Your task to perform on an android device: open chrome privacy settings Image 0: 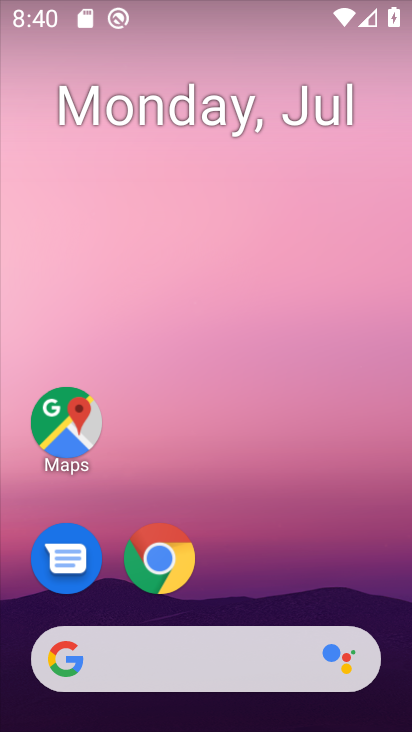
Step 0: drag from (382, 579) to (373, 105)
Your task to perform on an android device: open chrome privacy settings Image 1: 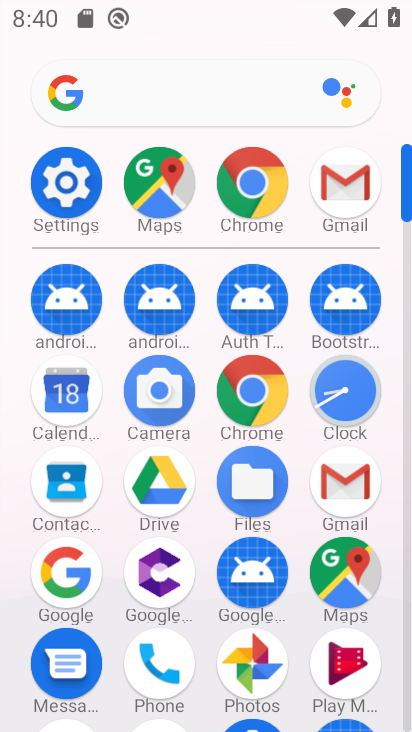
Step 1: click (254, 393)
Your task to perform on an android device: open chrome privacy settings Image 2: 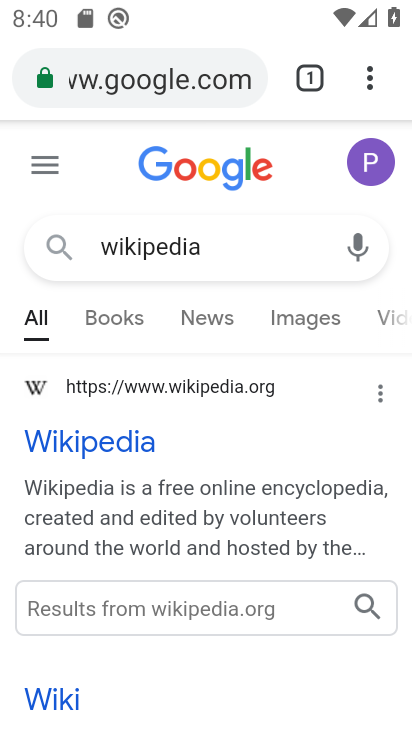
Step 2: click (371, 83)
Your task to perform on an android device: open chrome privacy settings Image 3: 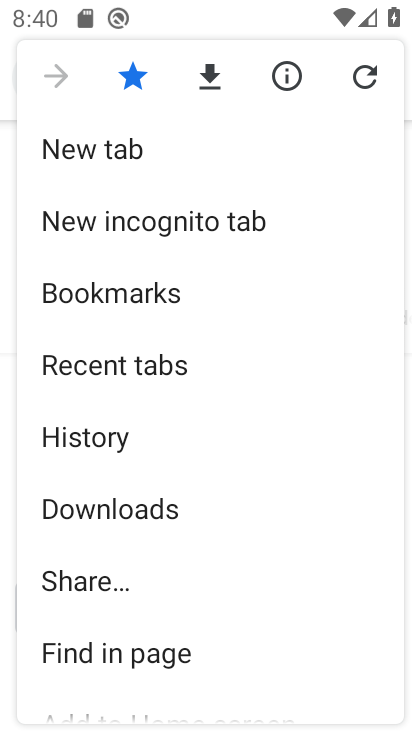
Step 3: drag from (326, 437) to (332, 244)
Your task to perform on an android device: open chrome privacy settings Image 4: 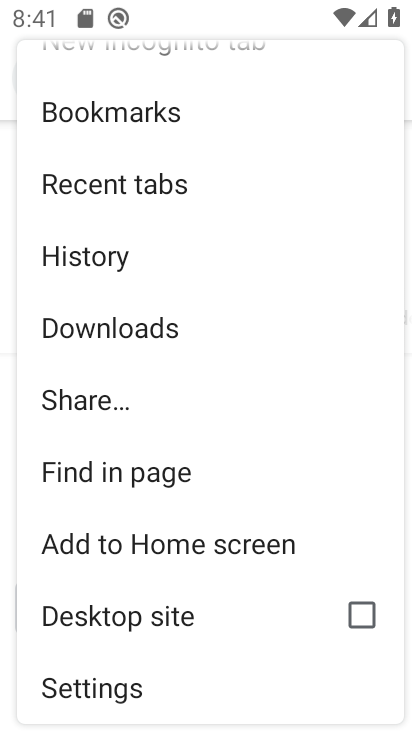
Step 4: drag from (292, 471) to (293, 296)
Your task to perform on an android device: open chrome privacy settings Image 5: 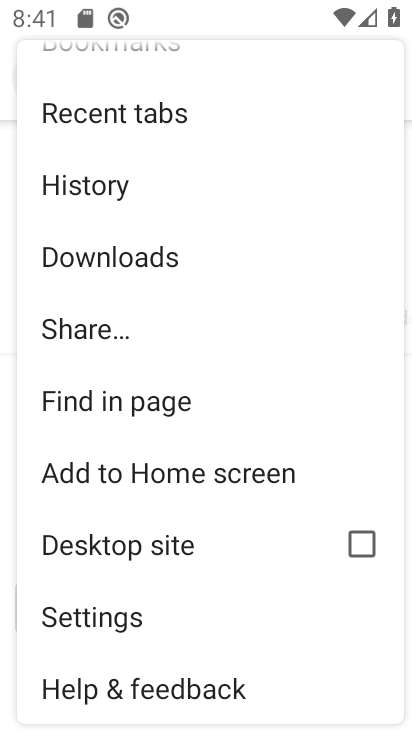
Step 5: click (160, 614)
Your task to perform on an android device: open chrome privacy settings Image 6: 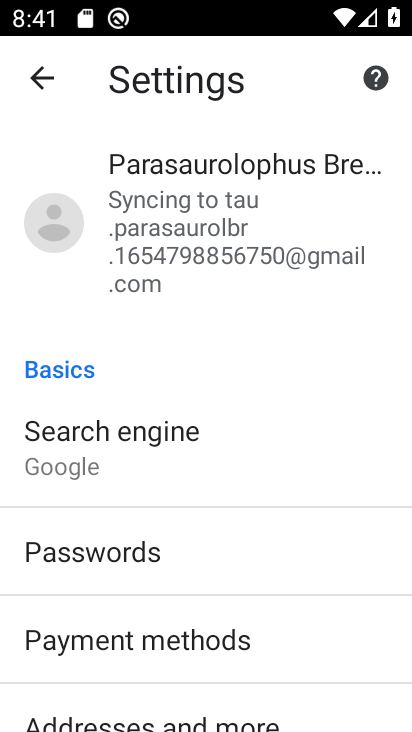
Step 6: drag from (277, 600) to (280, 415)
Your task to perform on an android device: open chrome privacy settings Image 7: 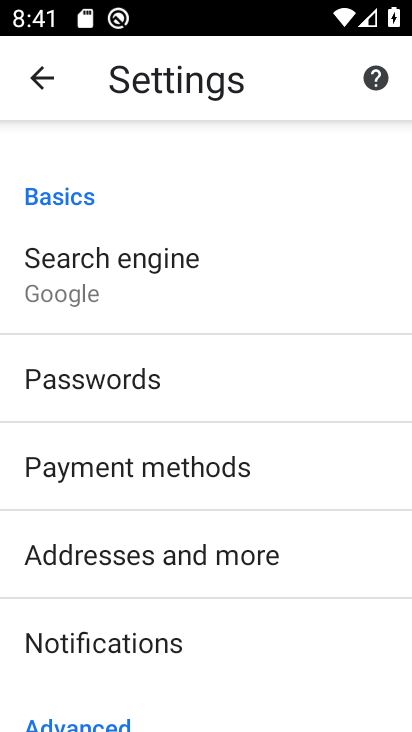
Step 7: drag from (332, 529) to (326, 413)
Your task to perform on an android device: open chrome privacy settings Image 8: 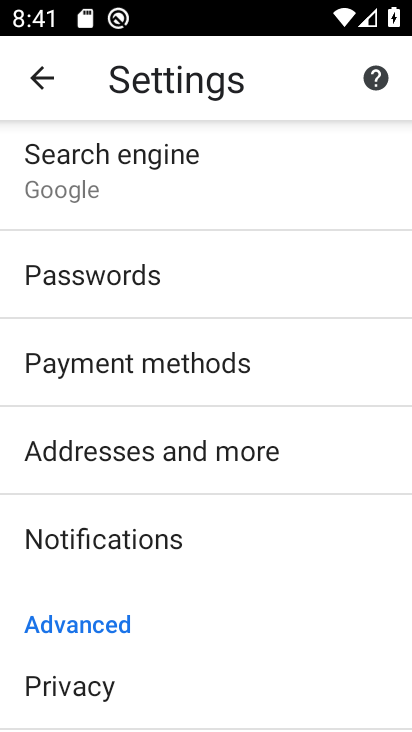
Step 8: drag from (323, 501) to (330, 367)
Your task to perform on an android device: open chrome privacy settings Image 9: 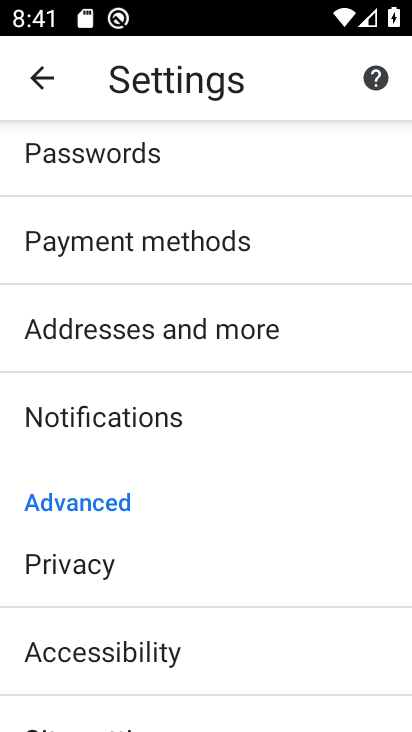
Step 9: drag from (308, 561) to (306, 442)
Your task to perform on an android device: open chrome privacy settings Image 10: 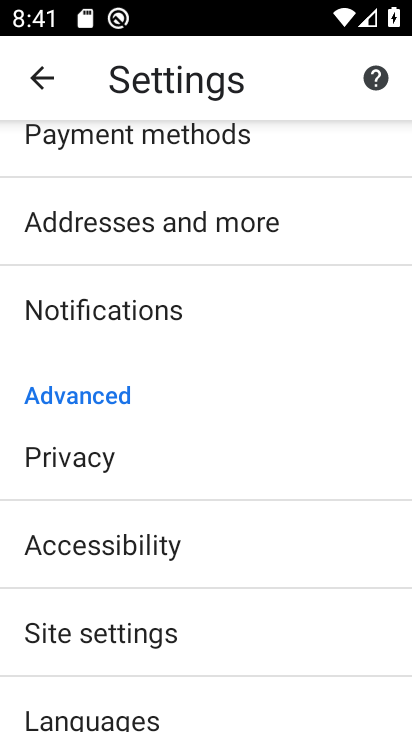
Step 10: click (194, 472)
Your task to perform on an android device: open chrome privacy settings Image 11: 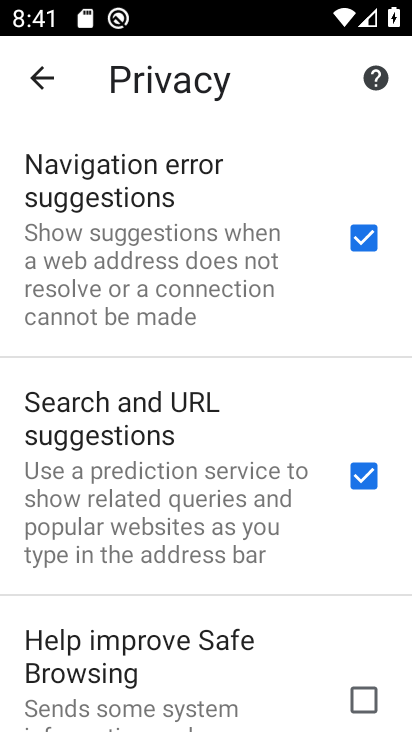
Step 11: task complete